Your task to perform on an android device: open a bookmark in the chrome app Image 0: 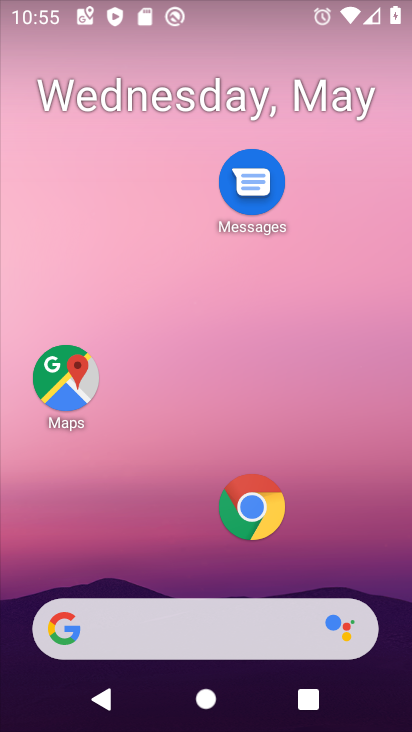
Step 0: click (248, 498)
Your task to perform on an android device: open a bookmark in the chrome app Image 1: 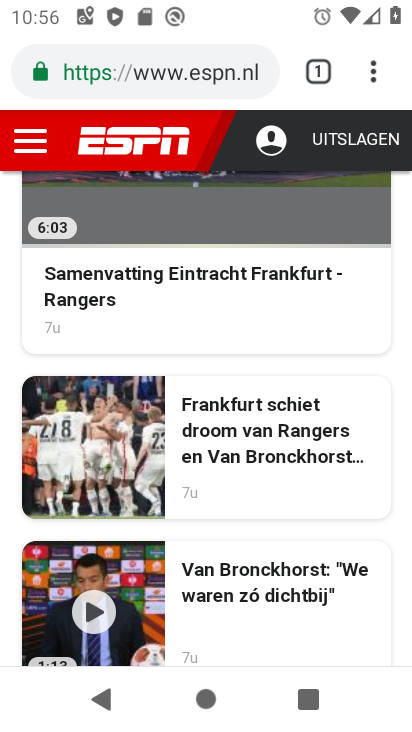
Step 1: click (371, 61)
Your task to perform on an android device: open a bookmark in the chrome app Image 2: 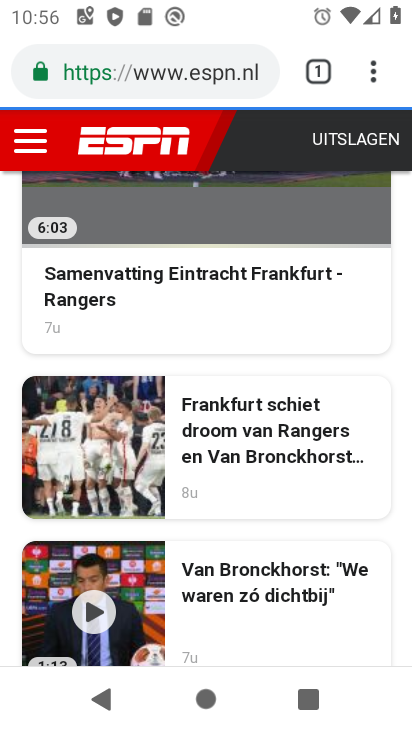
Step 2: click (372, 70)
Your task to perform on an android device: open a bookmark in the chrome app Image 3: 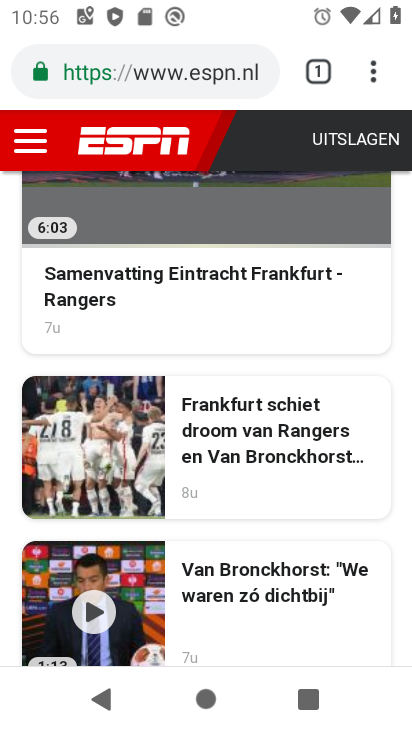
Step 3: click (375, 66)
Your task to perform on an android device: open a bookmark in the chrome app Image 4: 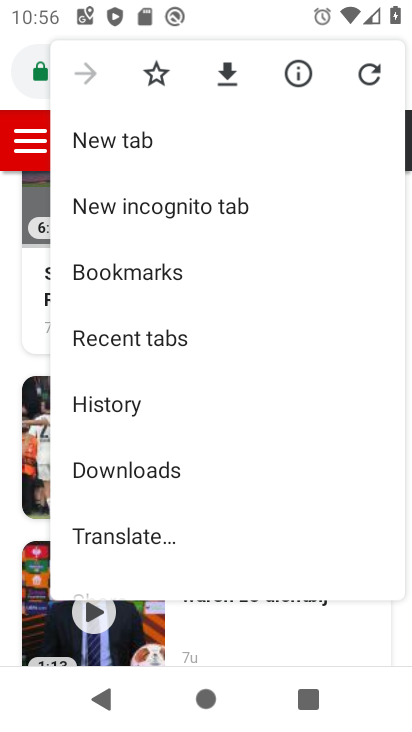
Step 4: click (193, 268)
Your task to perform on an android device: open a bookmark in the chrome app Image 5: 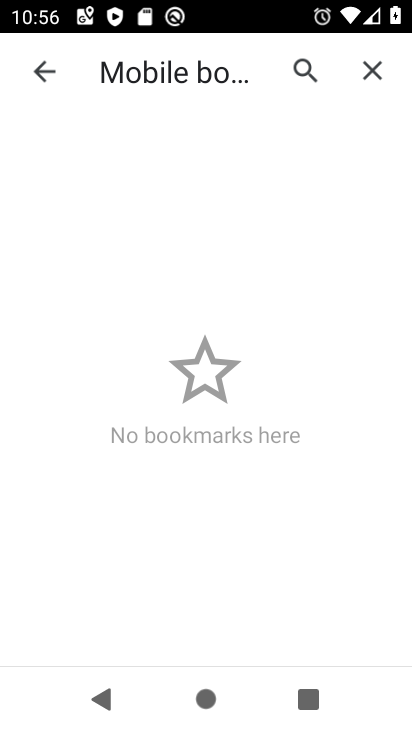
Step 5: task complete